Your task to perform on an android device: Open Youtube and go to "Your channel" Image 0: 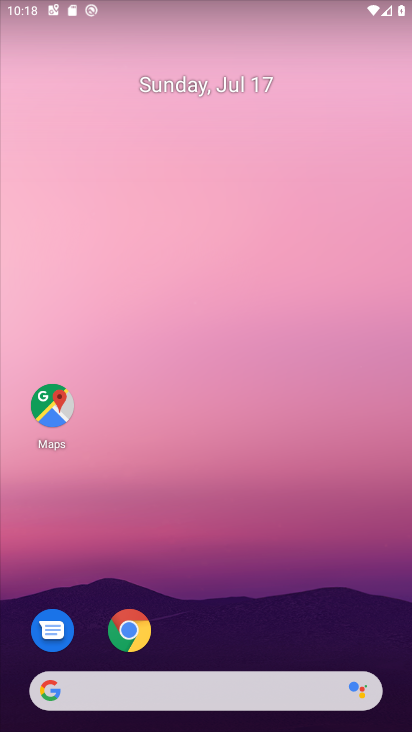
Step 0: drag from (249, 593) to (261, 19)
Your task to perform on an android device: Open Youtube and go to "Your channel" Image 1: 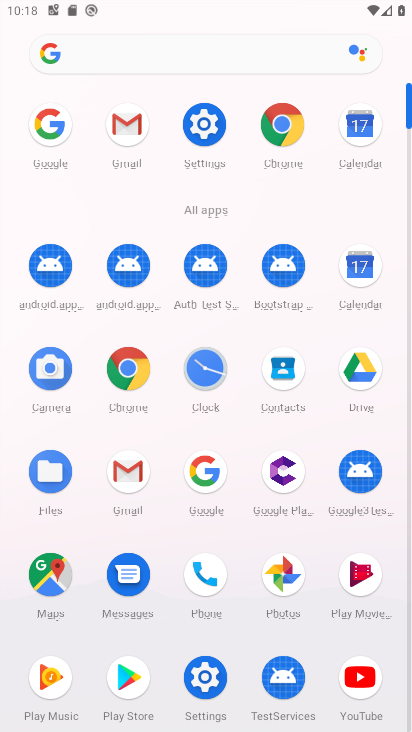
Step 1: click (365, 677)
Your task to perform on an android device: Open Youtube and go to "Your channel" Image 2: 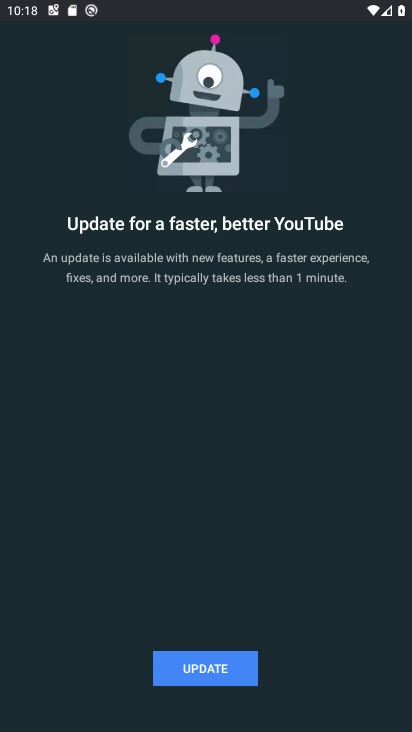
Step 2: click (242, 672)
Your task to perform on an android device: Open Youtube and go to "Your channel" Image 3: 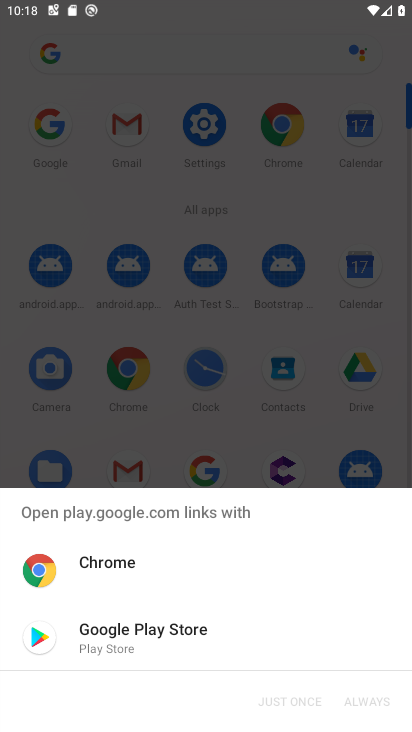
Step 3: click (177, 618)
Your task to perform on an android device: Open Youtube and go to "Your channel" Image 4: 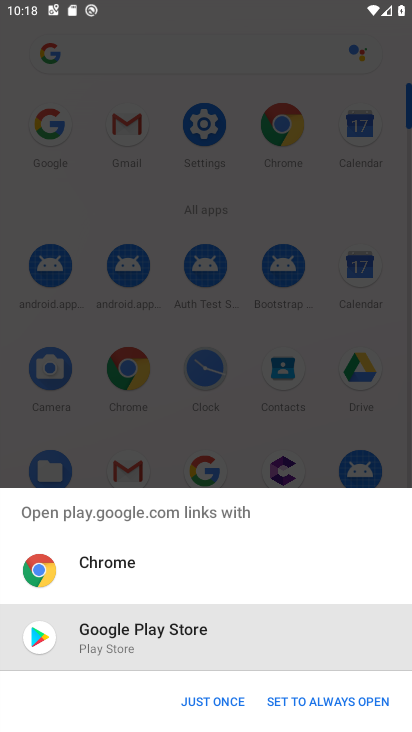
Step 4: click (233, 701)
Your task to perform on an android device: Open Youtube and go to "Your channel" Image 5: 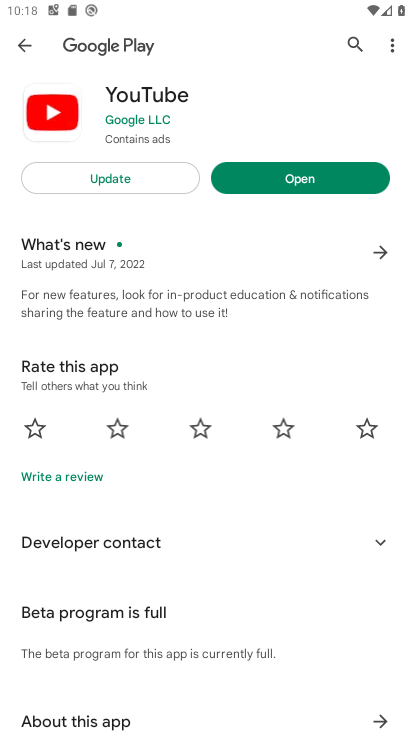
Step 5: click (140, 180)
Your task to perform on an android device: Open Youtube and go to "Your channel" Image 6: 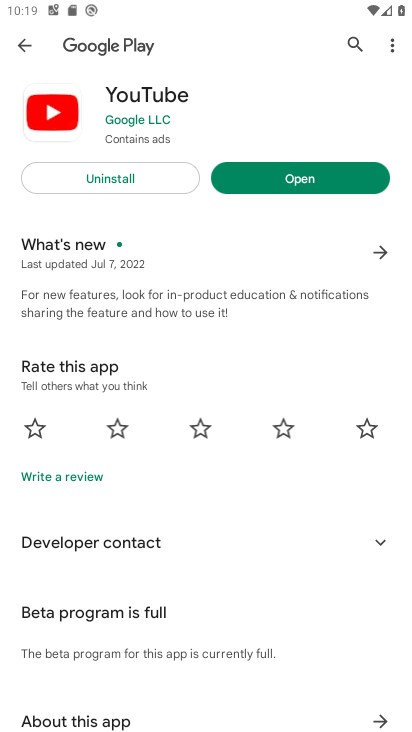
Step 6: click (329, 172)
Your task to perform on an android device: Open Youtube and go to "Your channel" Image 7: 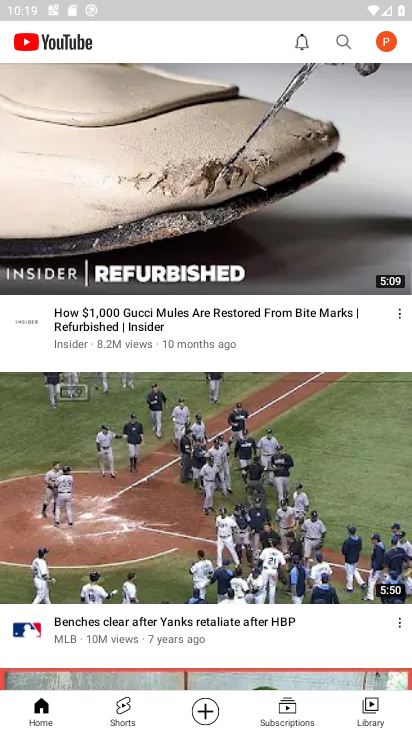
Step 7: click (383, 44)
Your task to perform on an android device: Open Youtube and go to "Your channel" Image 8: 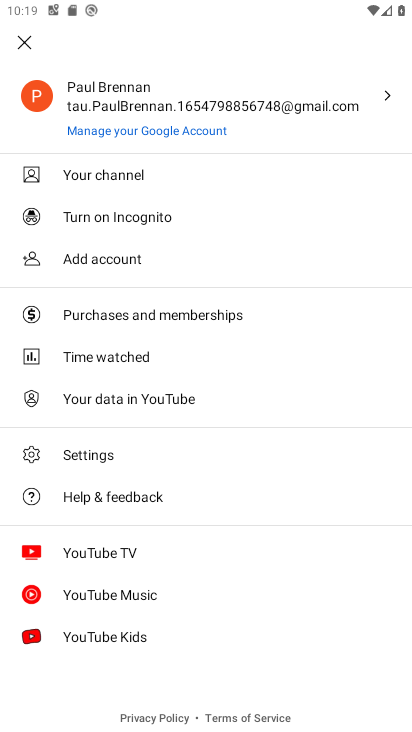
Step 8: click (131, 167)
Your task to perform on an android device: Open Youtube and go to "Your channel" Image 9: 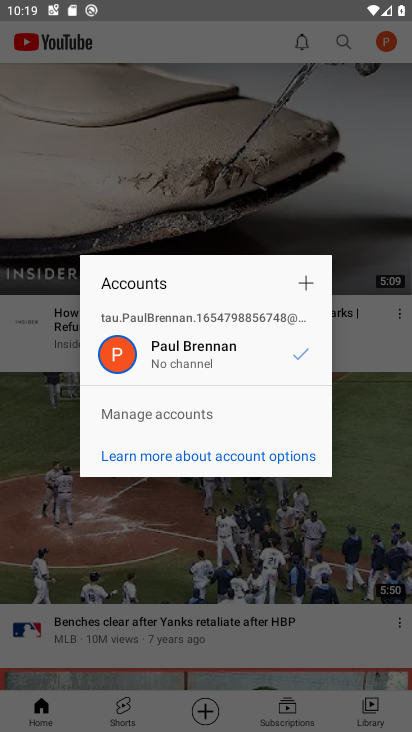
Step 9: click (208, 343)
Your task to perform on an android device: Open Youtube and go to "Your channel" Image 10: 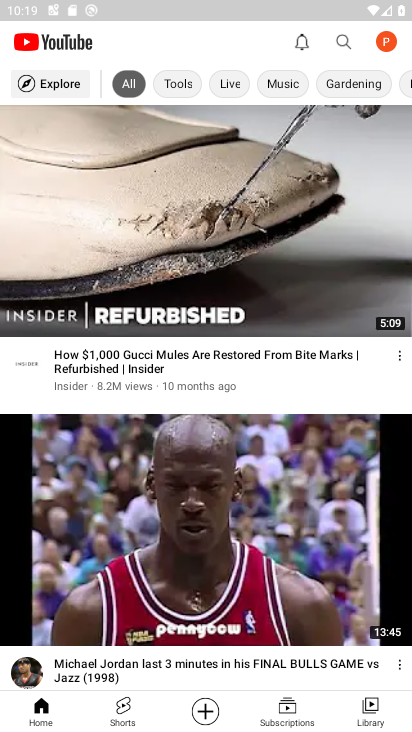
Step 10: task complete